Your task to perform on an android device: show emergency info Image 0: 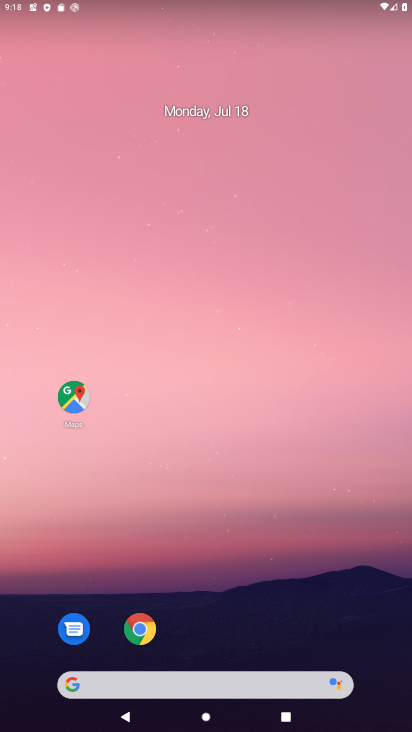
Step 0: drag from (360, 666) to (319, 117)
Your task to perform on an android device: show emergency info Image 1: 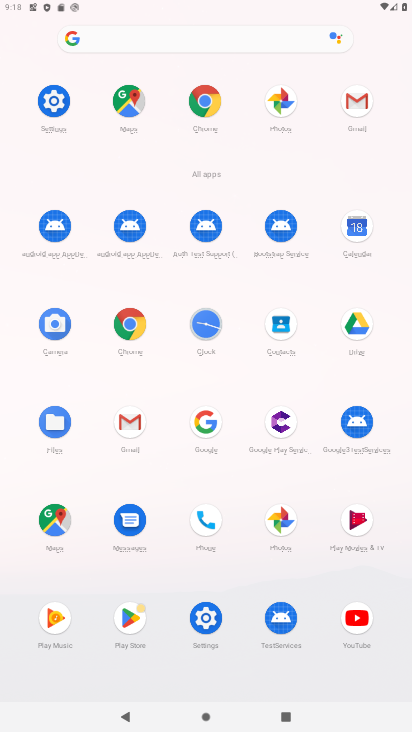
Step 1: click (50, 95)
Your task to perform on an android device: show emergency info Image 2: 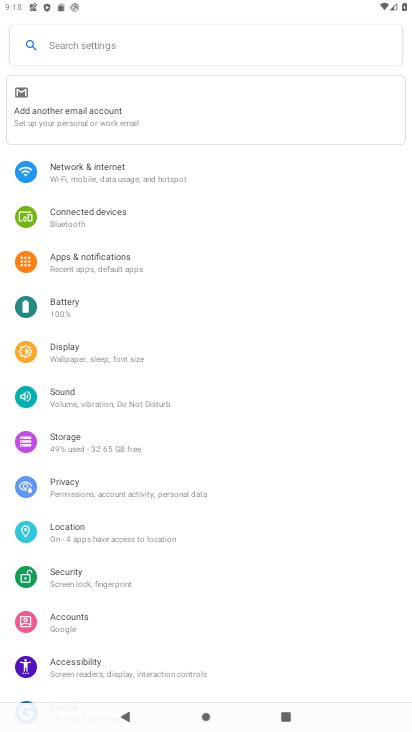
Step 2: drag from (150, 648) to (240, 193)
Your task to perform on an android device: show emergency info Image 3: 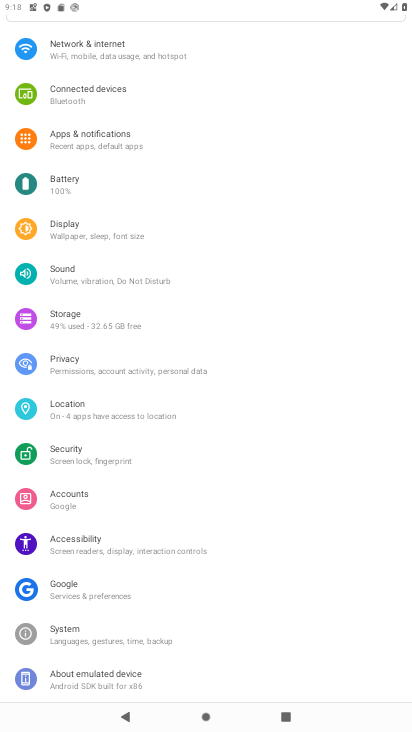
Step 3: click (103, 668)
Your task to perform on an android device: show emergency info Image 4: 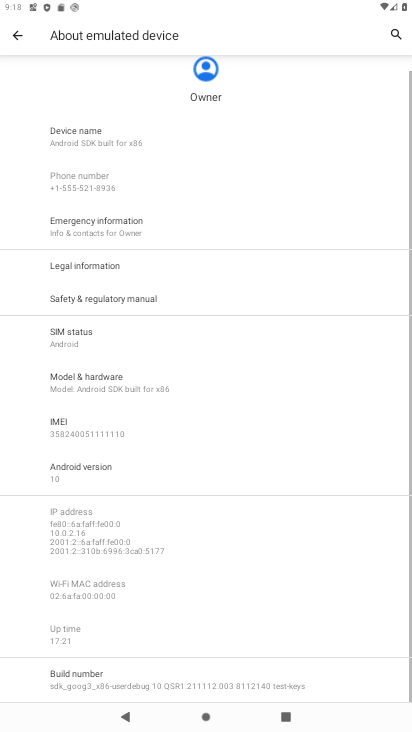
Step 4: click (131, 220)
Your task to perform on an android device: show emergency info Image 5: 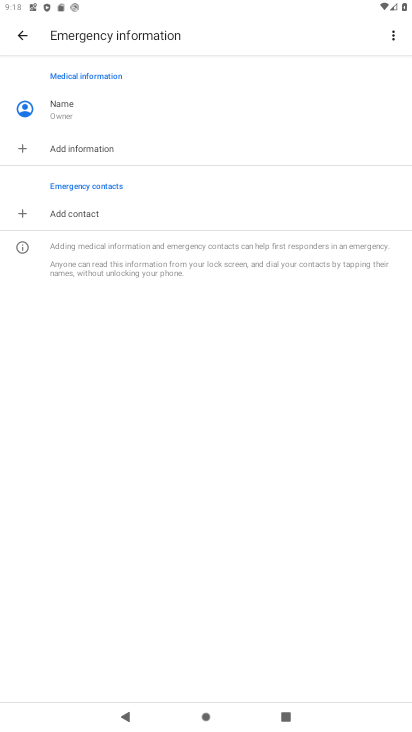
Step 5: task complete